Your task to perform on an android device: turn pop-ups on in chrome Image 0: 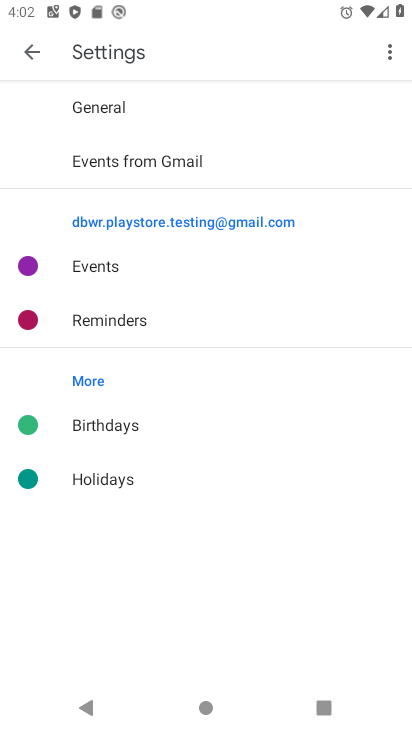
Step 0: press home button
Your task to perform on an android device: turn pop-ups on in chrome Image 1: 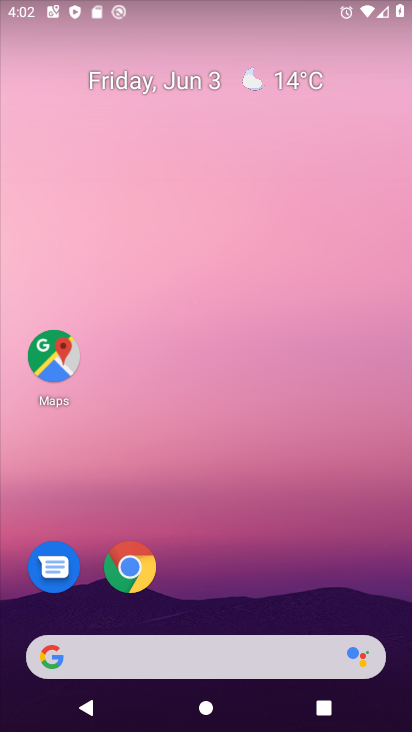
Step 1: drag from (230, 678) to (204, 153)
Your task to perform on an android device: turn pop-ups on in chrome Image 2: 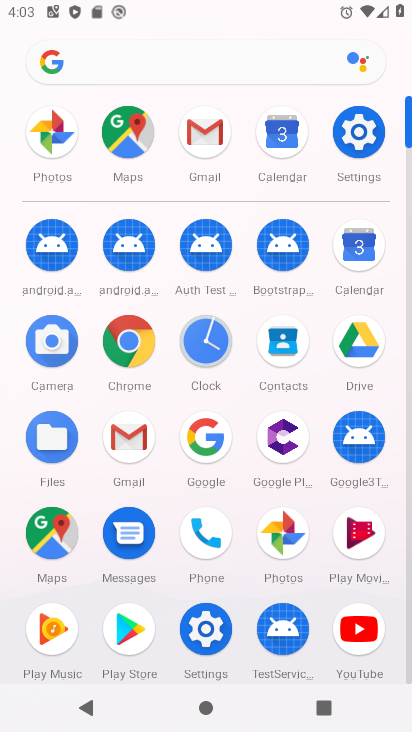
Step 2: click (133, 351)
Your task to perform on an android device: turn pop-ups on in chrome Image 3: 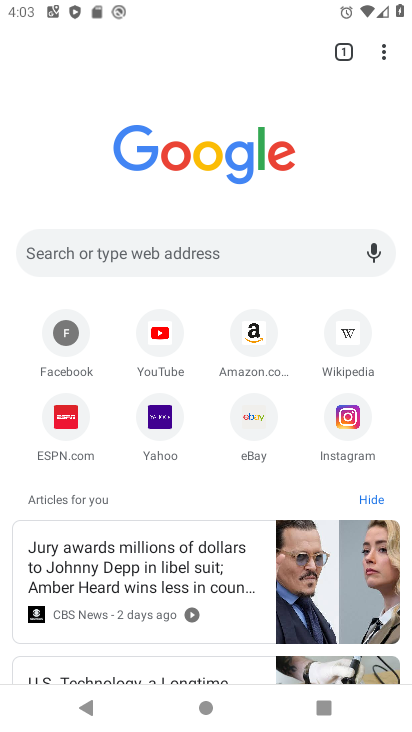
Step 3: click (375, 52)
Your task to perform on an android device: turn pop-ups on in chrome Image 4: 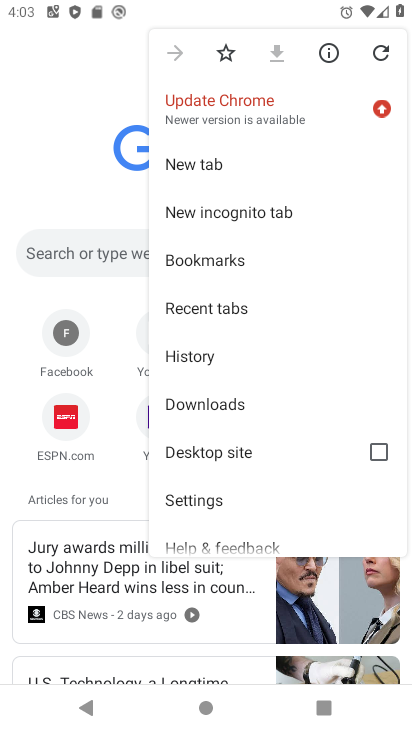
Step 4: click (221, 498)
Your task to perform on an android device: turn pop-ups on in chrome Image 5: 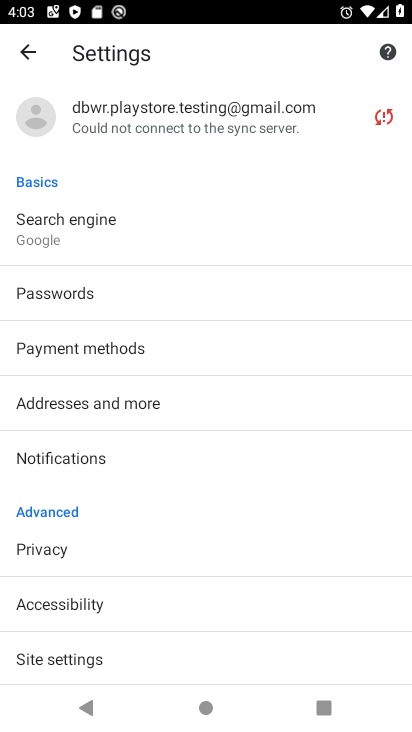
Step 5: click (99, 643)
Your task to perform on an android device: turn pop-ups on in chrome Image 6: 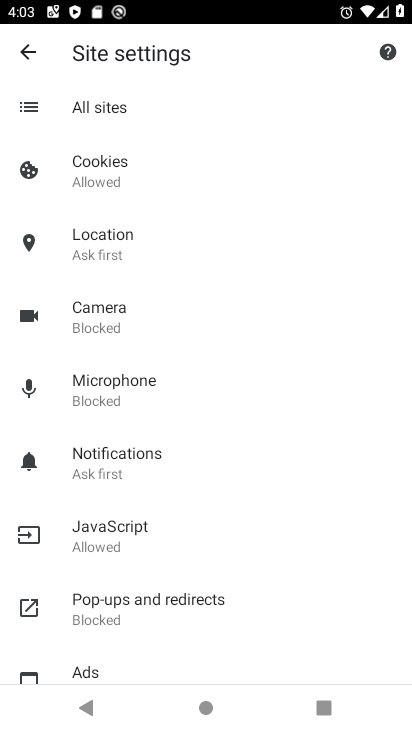
Step 6: click (166, 612)
Your task to perform on an android device: turn pop-ups on in chrome Image 7: 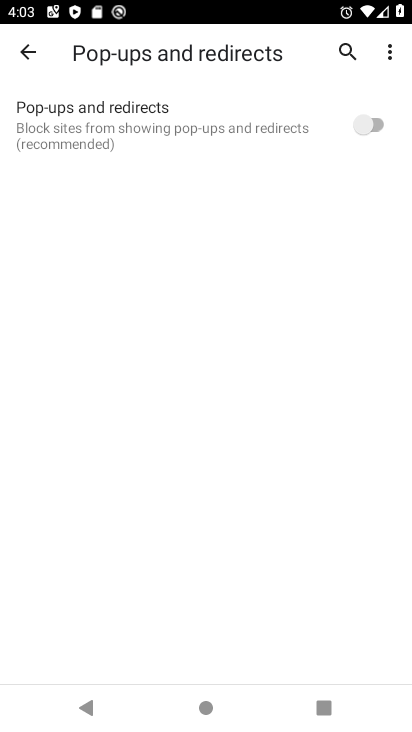
Step 7: click (358, 130)
Your task to perform on an android device: turn pop-ups on in chrome Image 8: 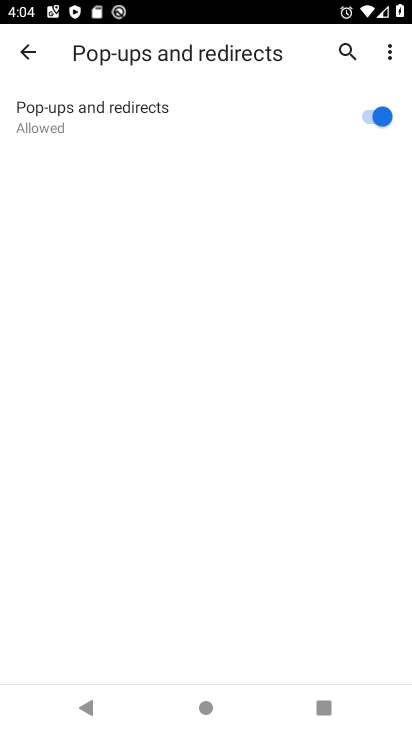
Step 8: task complete